Your task to perform on an android device: Open the Play Movies app and select the watchlist tab. Image 0: 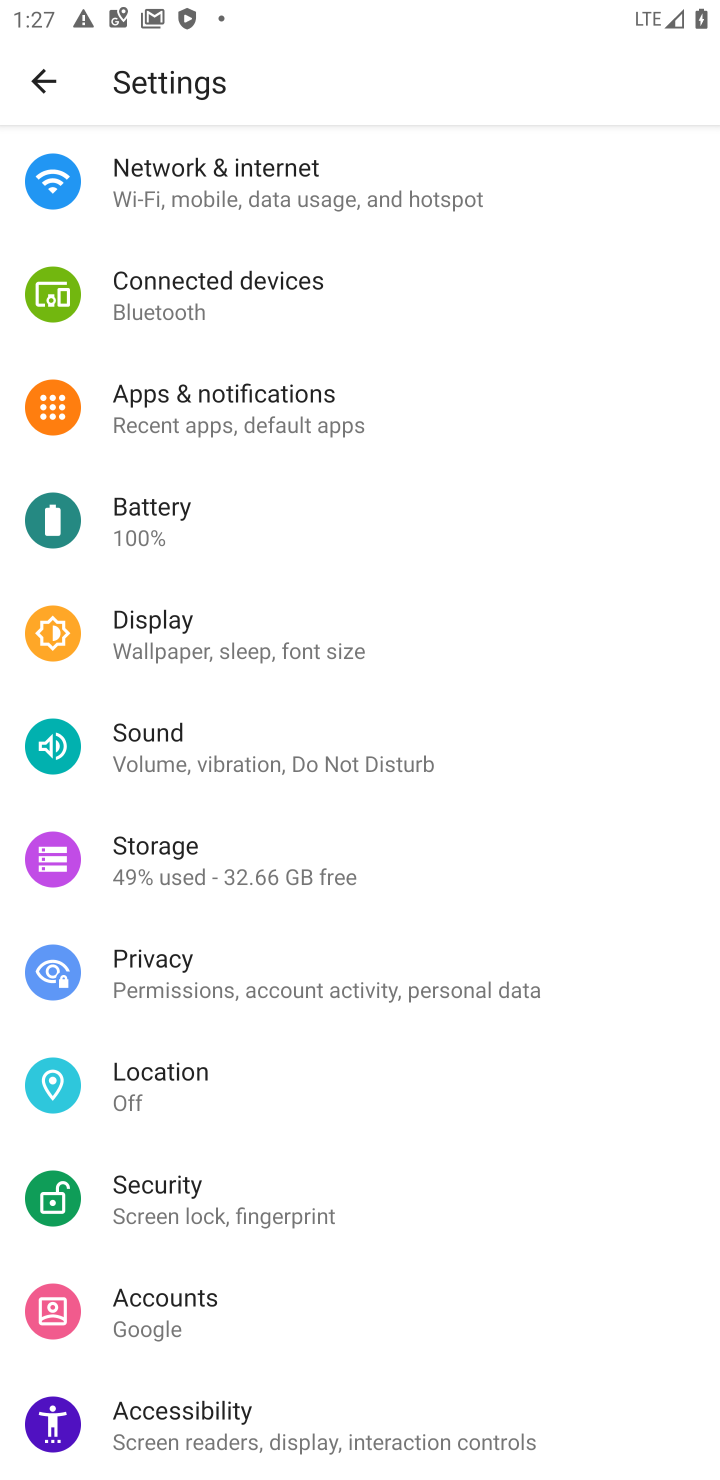
Step 0: press home button
Your task to perform on an android device: Open the Play Movies app and select the watchlist tab. Image 1: 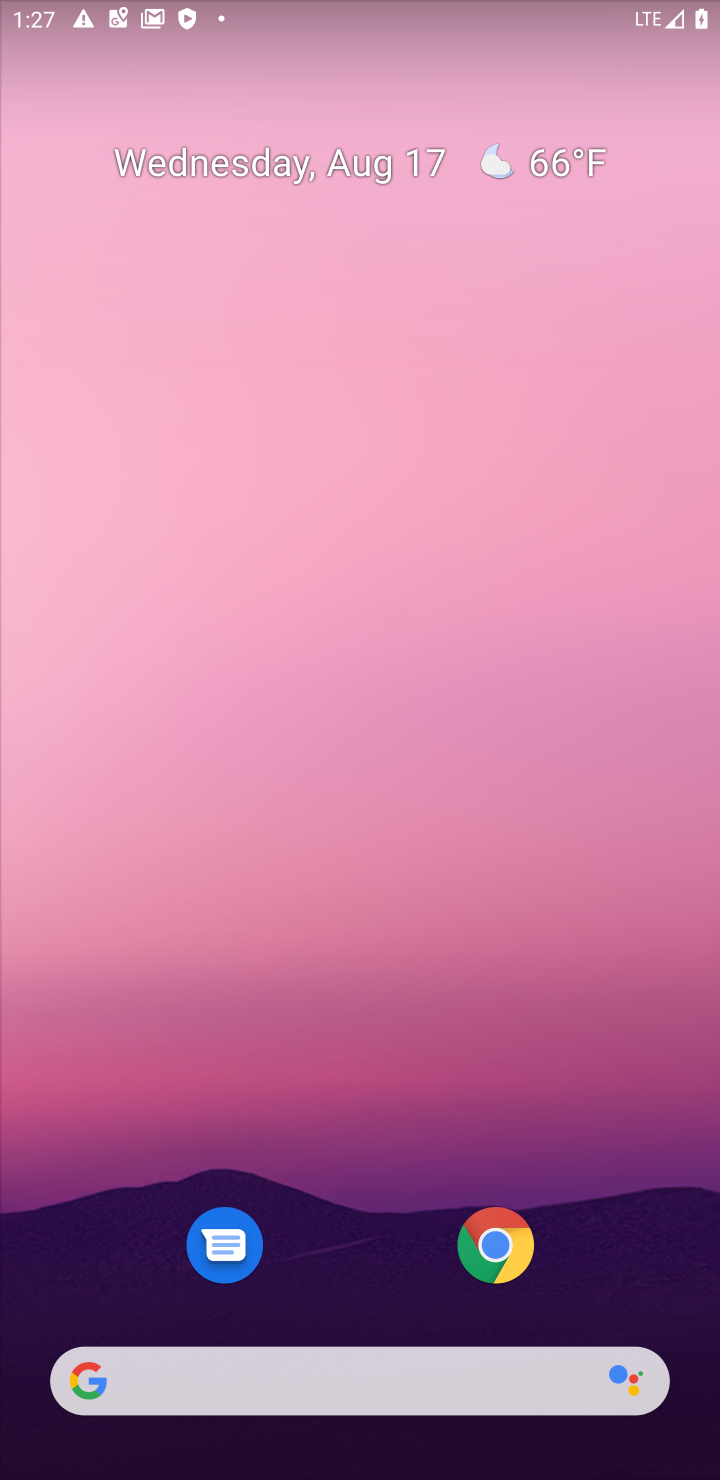
Step 1: drag from (438, 897) to (448, 161)
Your task to perform on an android device: Open the Play Movies app and select the watchlist tab. Image 2: 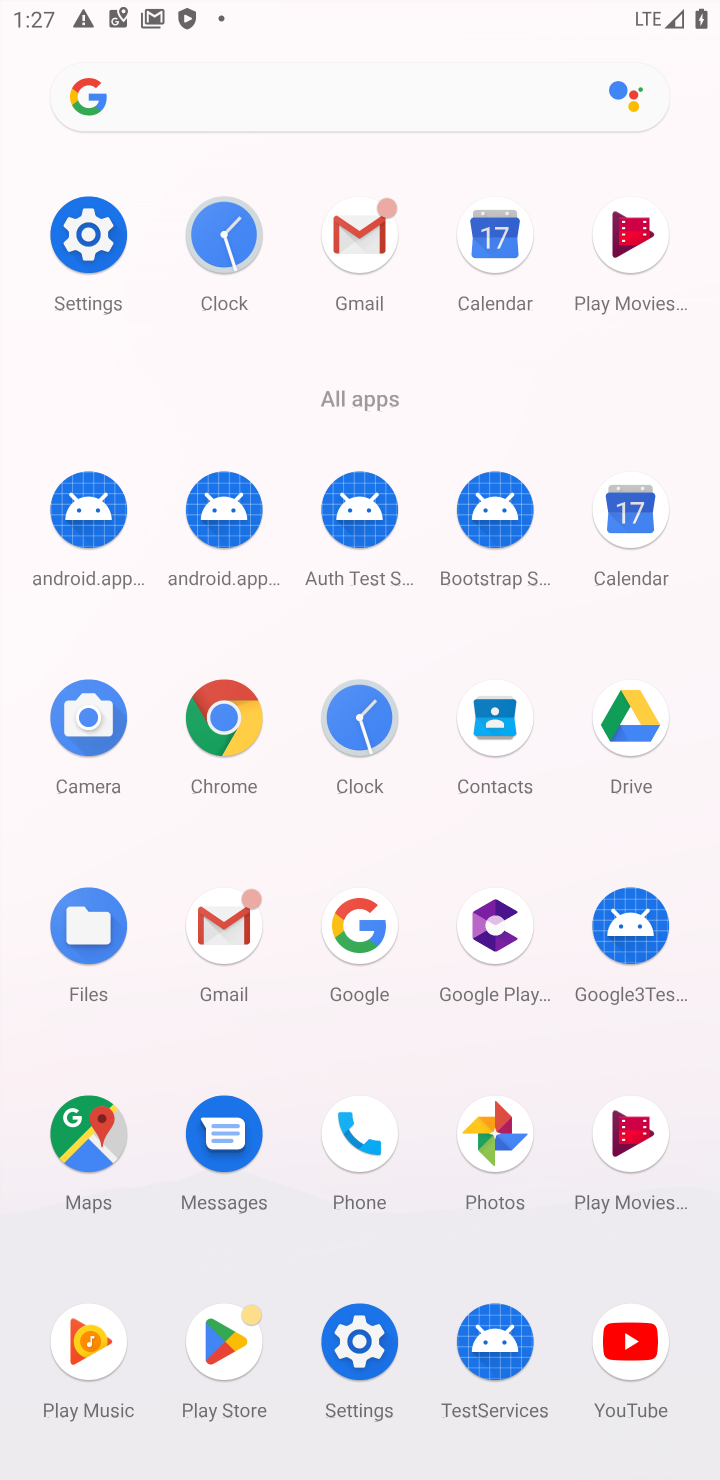
Step 2: click (622, 1127)
Your task to perform on an android device: Open the Play Movies app and select the watchlist tab. Image 3: 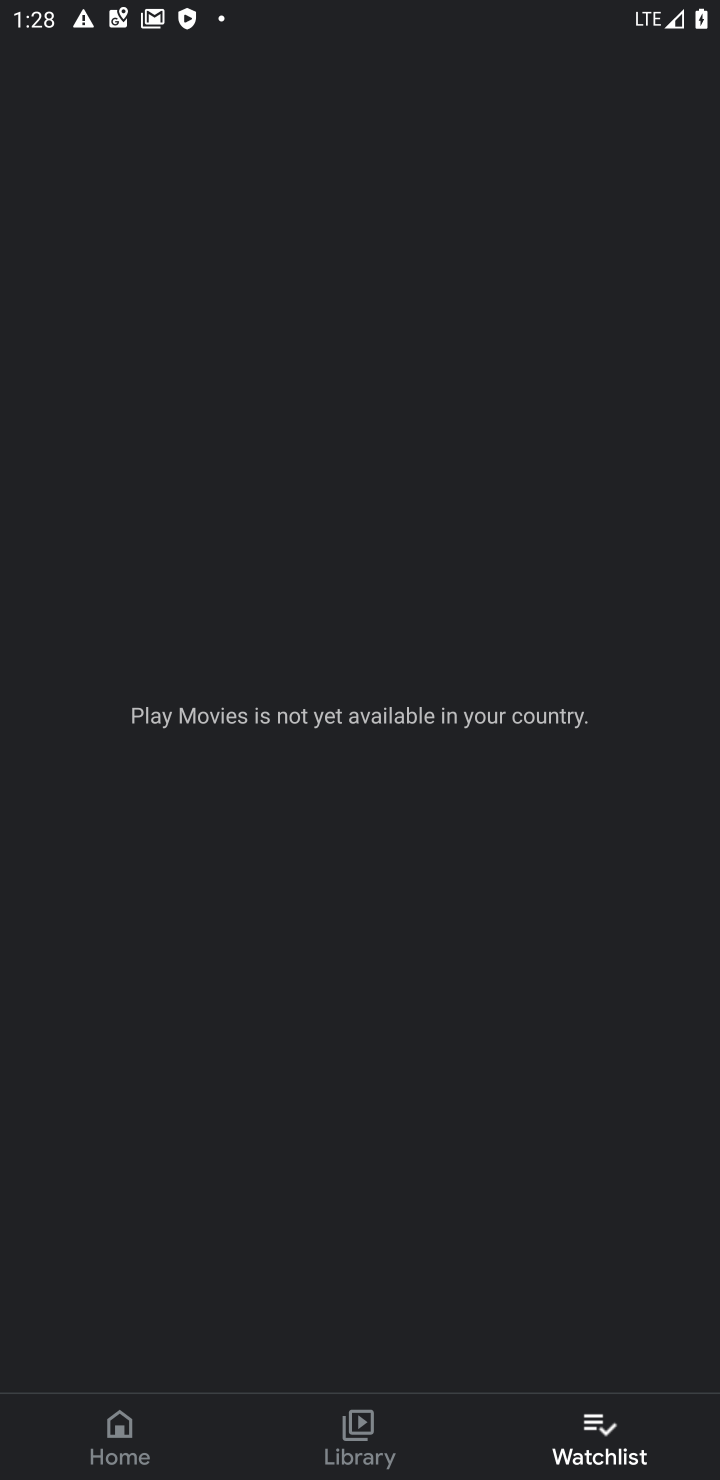
Step 3: task complete